Your task to perform on an android device: install app "Messages" Image 0: 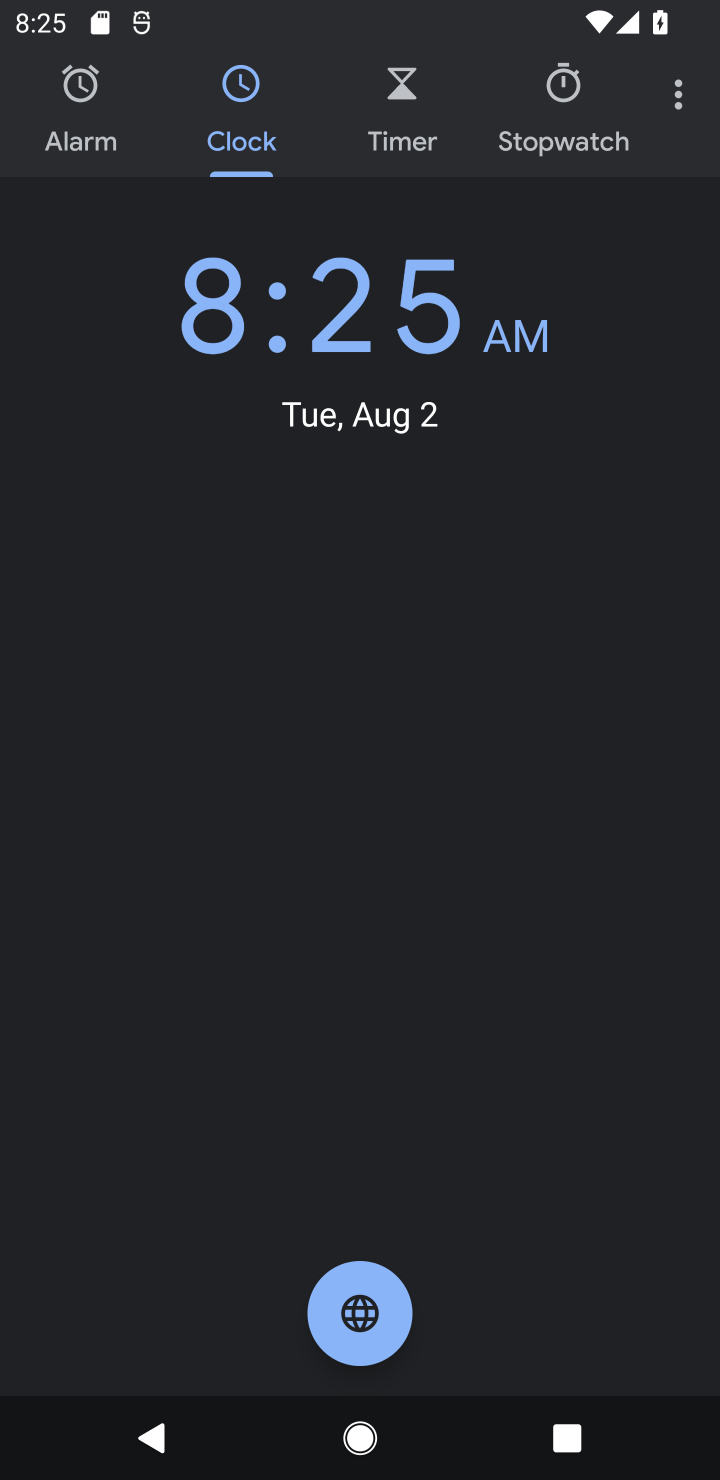
Step 0: press home button
Your task to perform on an android device: install app "Messages" Image 1: 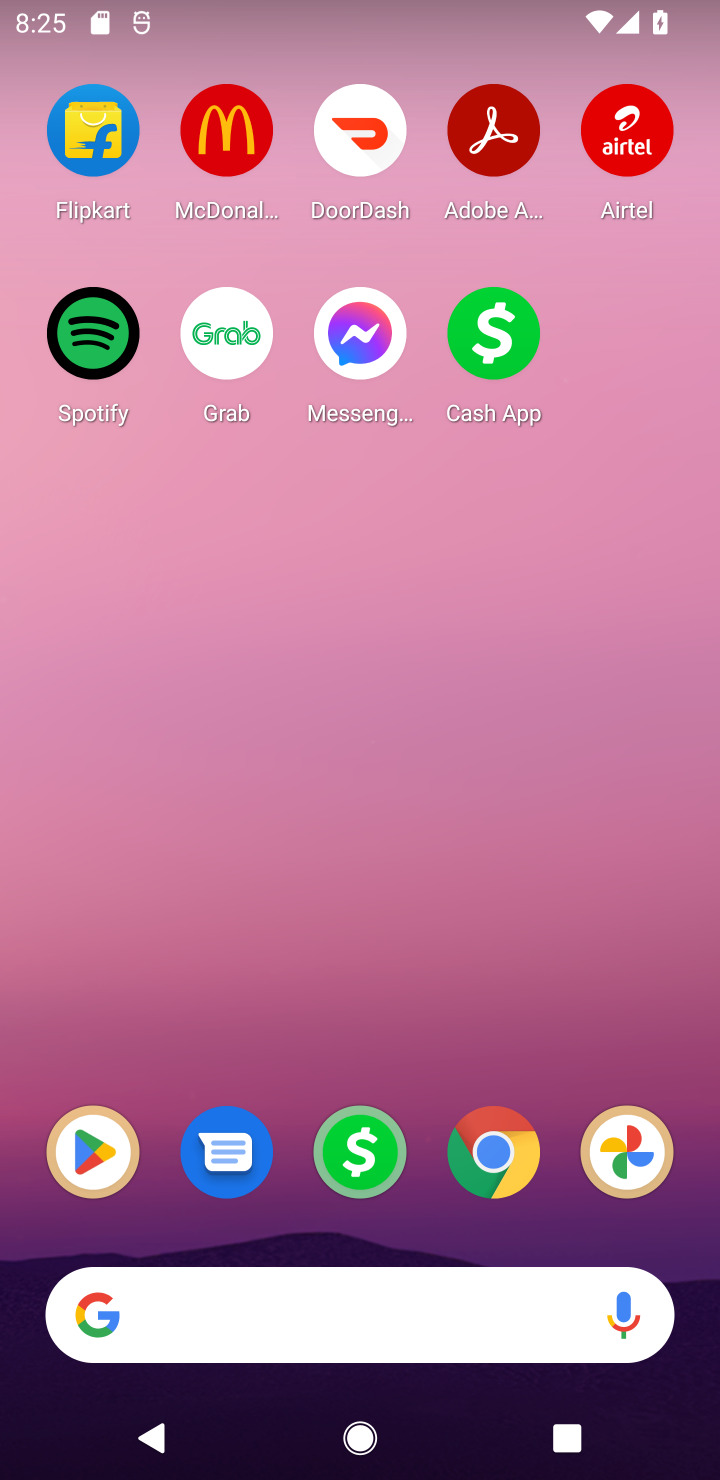
Step 1: click (86, 1171)
Your task to perform on an android device: install app "Messages" Image 2: 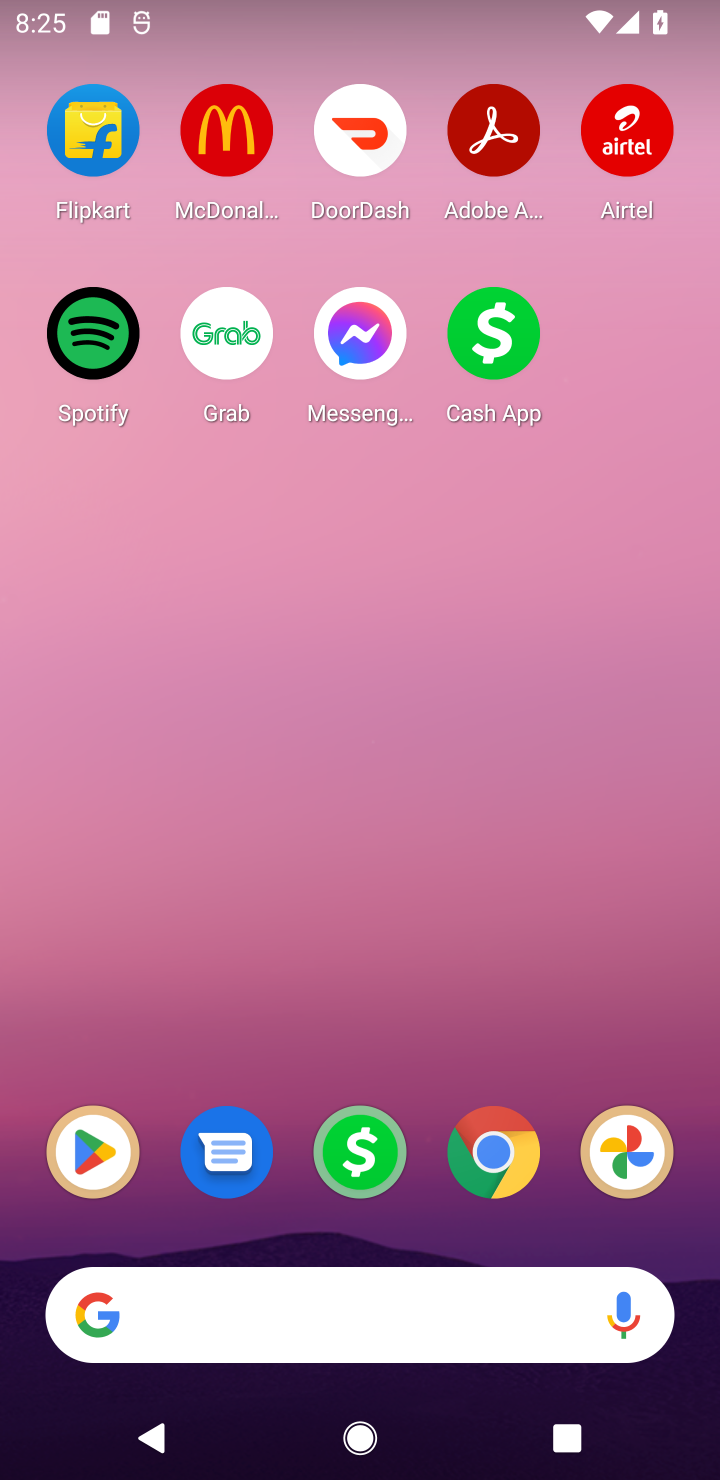
Step 2: click (83, 1148)
Your task to perform on an android device: install app "Messages" Image 3: 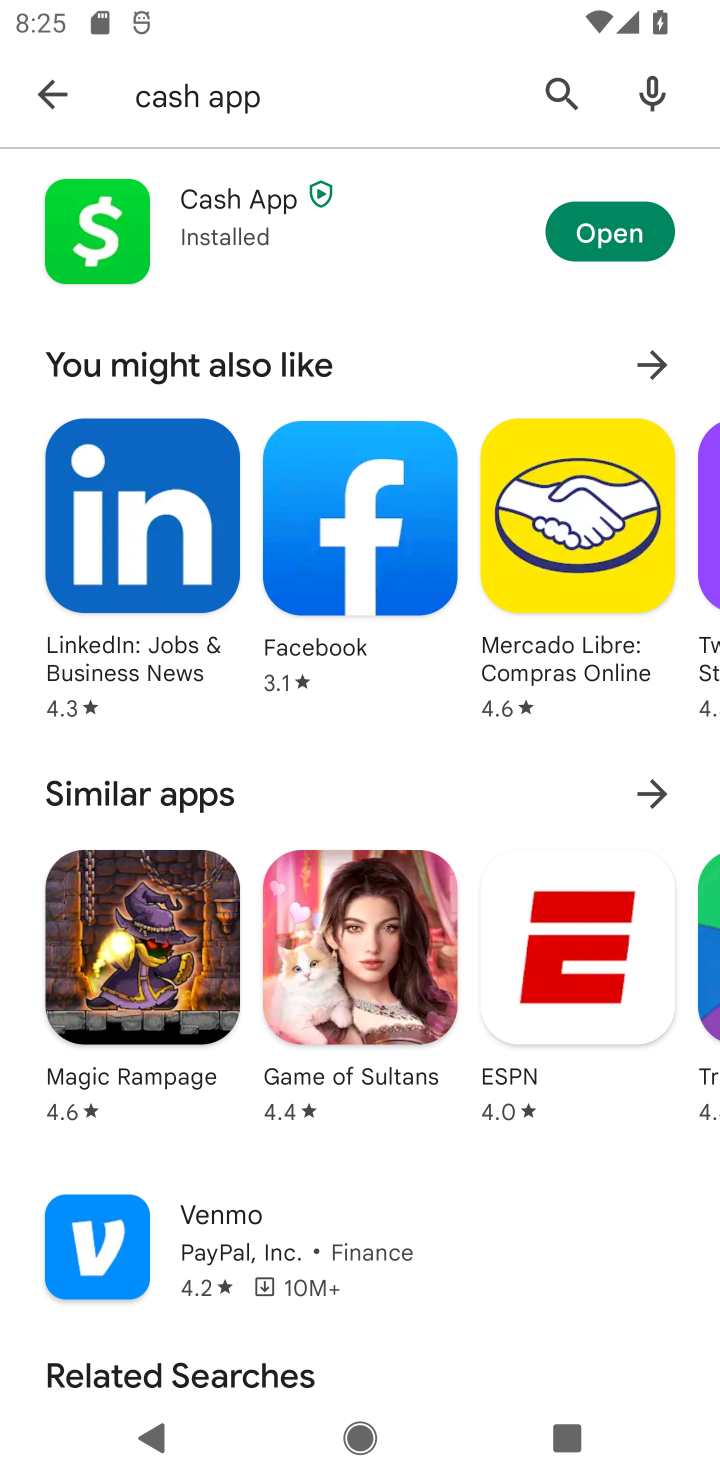
Step 3: click (41, 105)
Your task to perform on an android device: install app "Messages" Image 4: 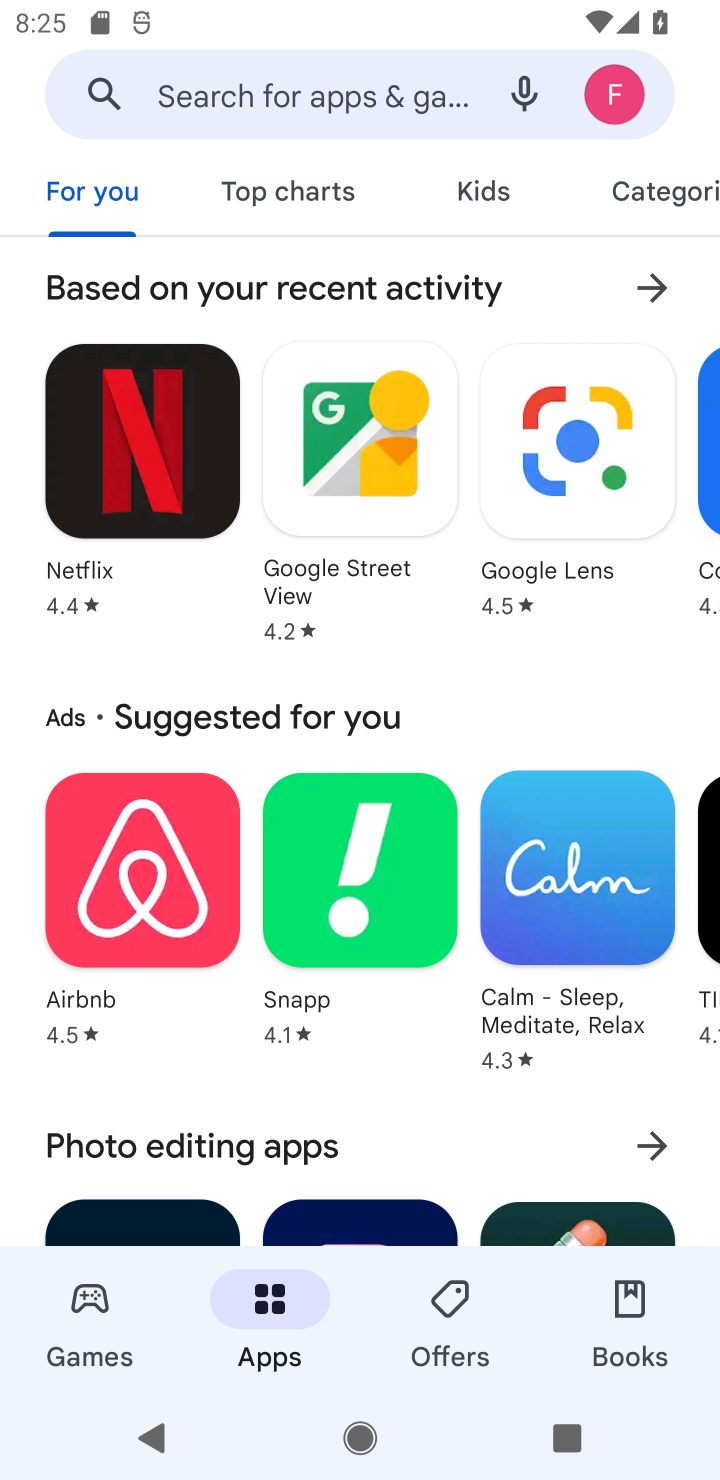
Step 4: click (290, 103)
Your task to perform on an android device: install app "Messages" Image 5: 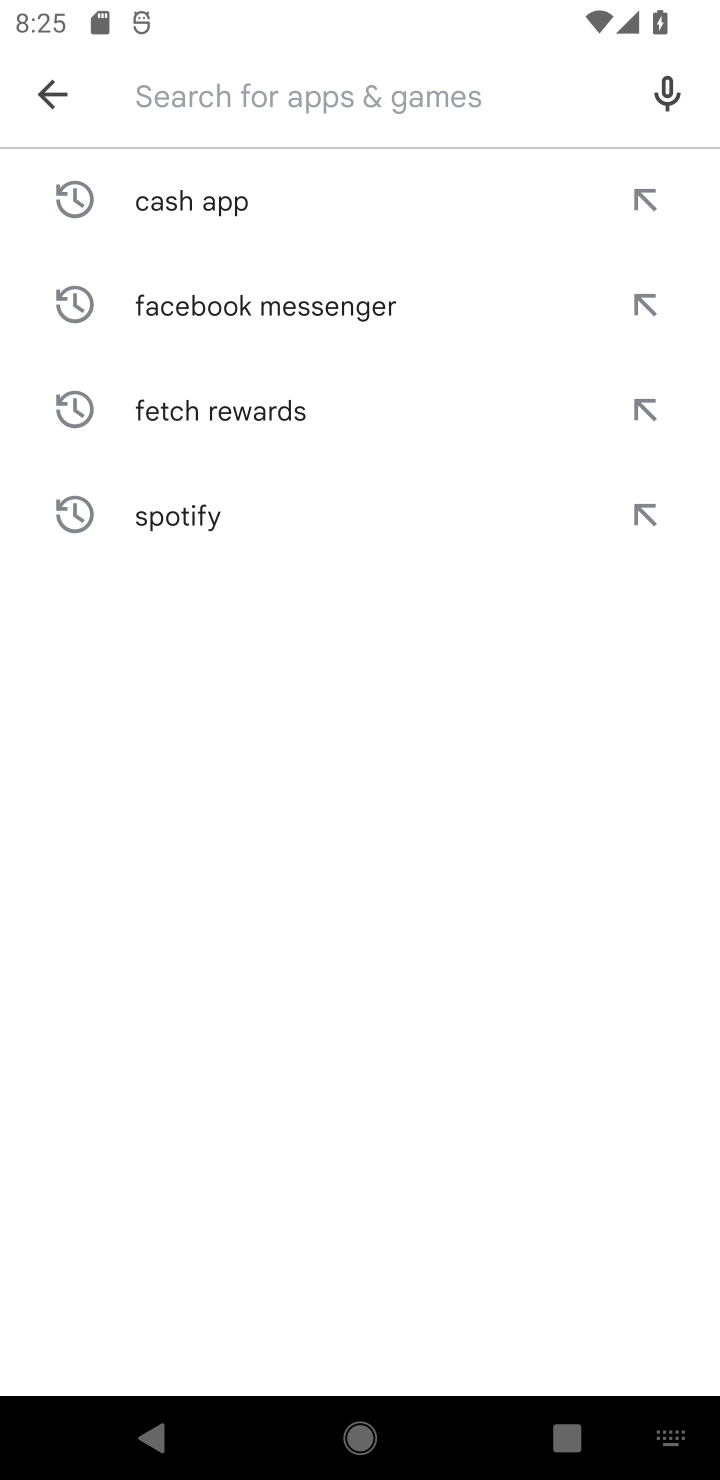
Step 5: type "Messages"
Your task to perform on an android device: install app "Messages" Image 6: 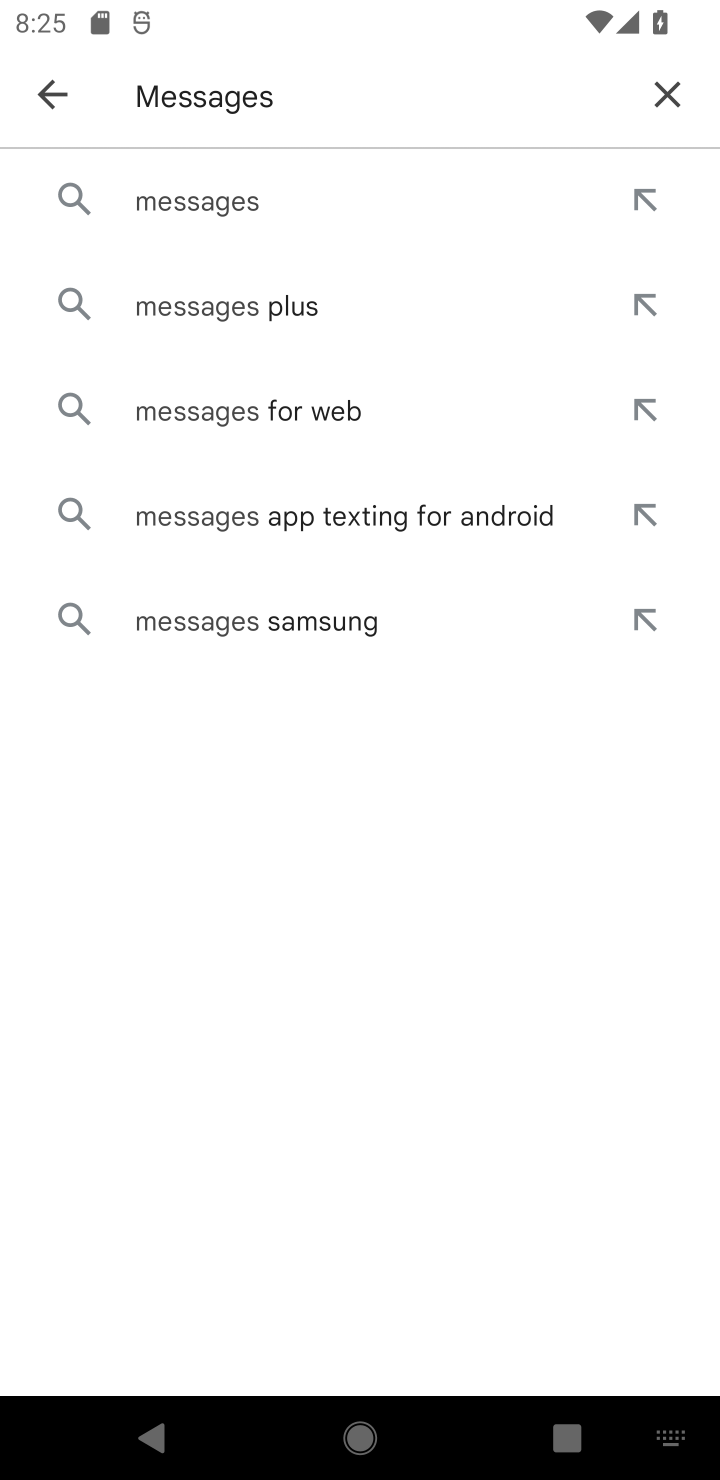
Step 6: click (208, 206)
Your task to perform on an android device: install app "Messages" Image 7: 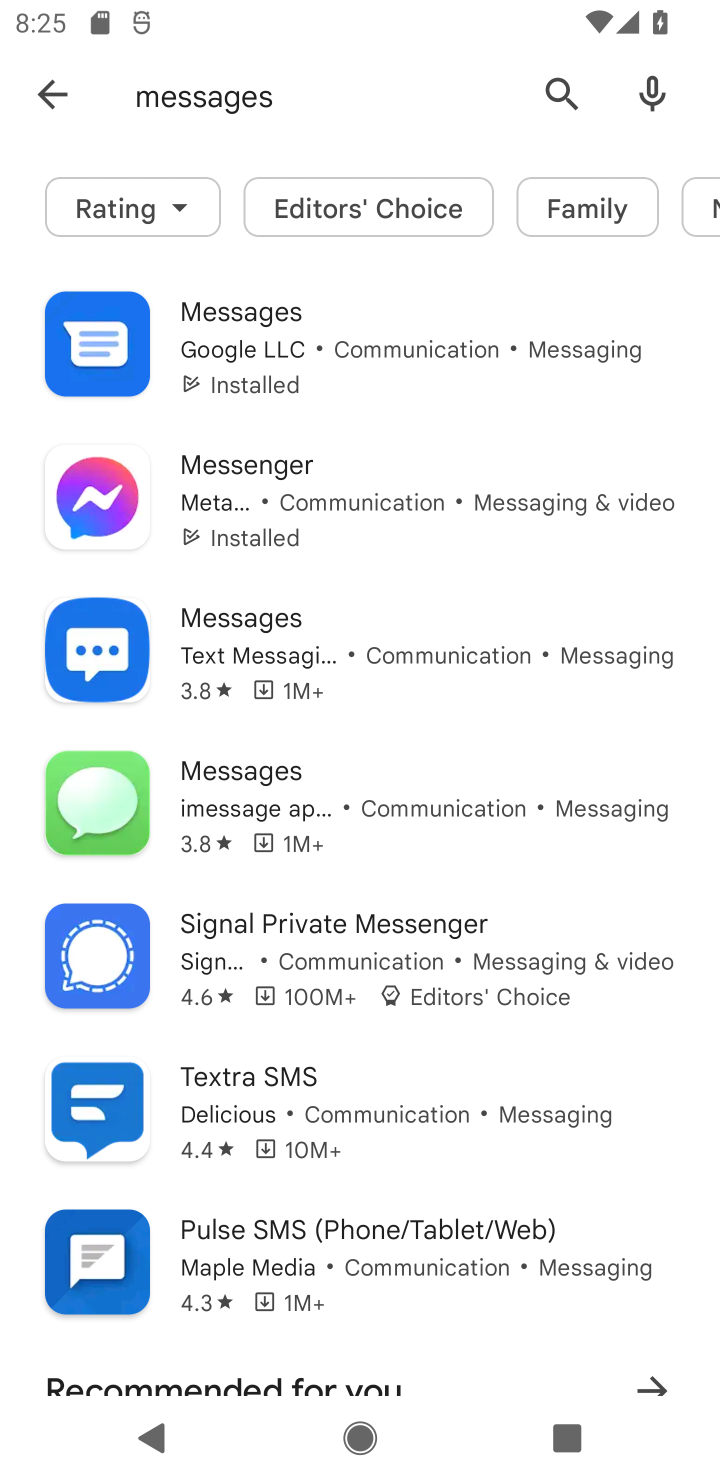
Step 7: click (235, 332)
Your task to perform on an android device: install app "Messages" Image 8: 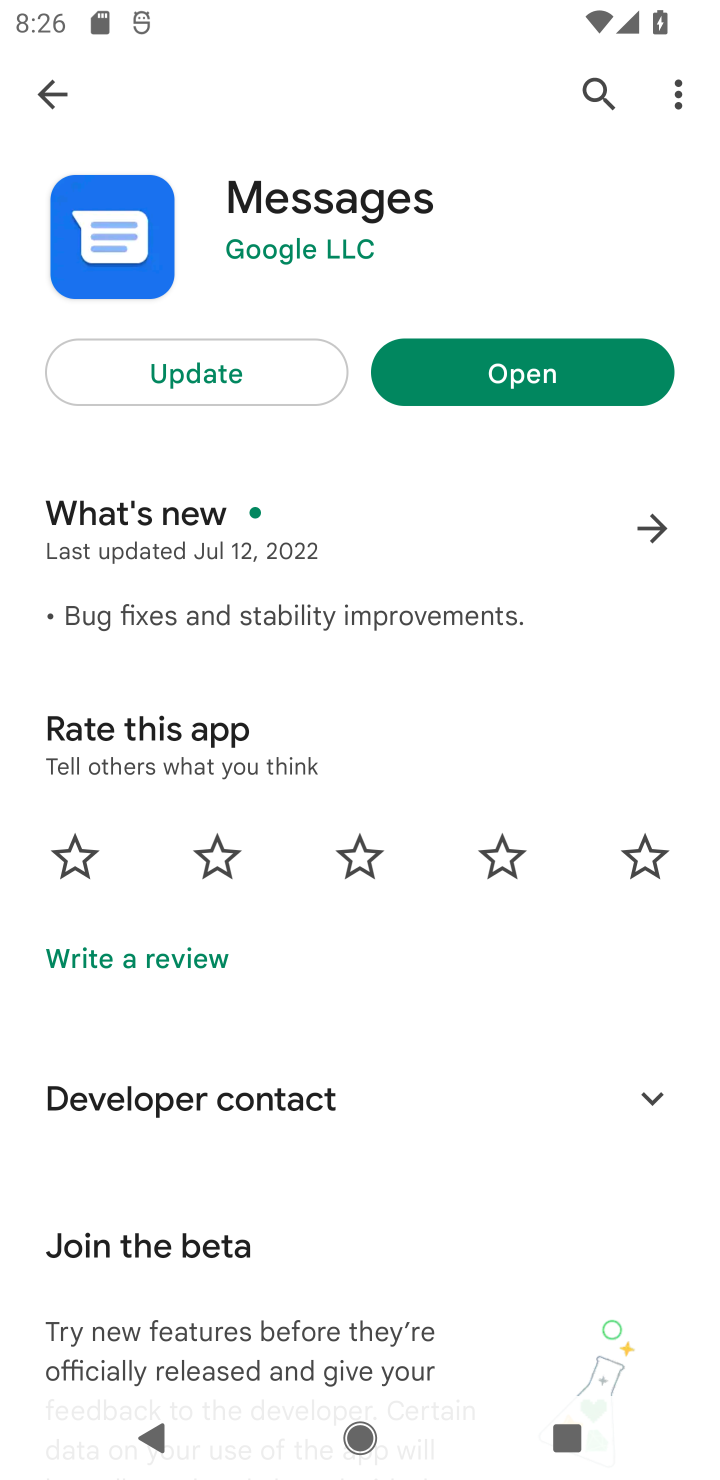
Step 8: click (543, 365)
Your task to perform on an android device: install app "Messages" Image 9: 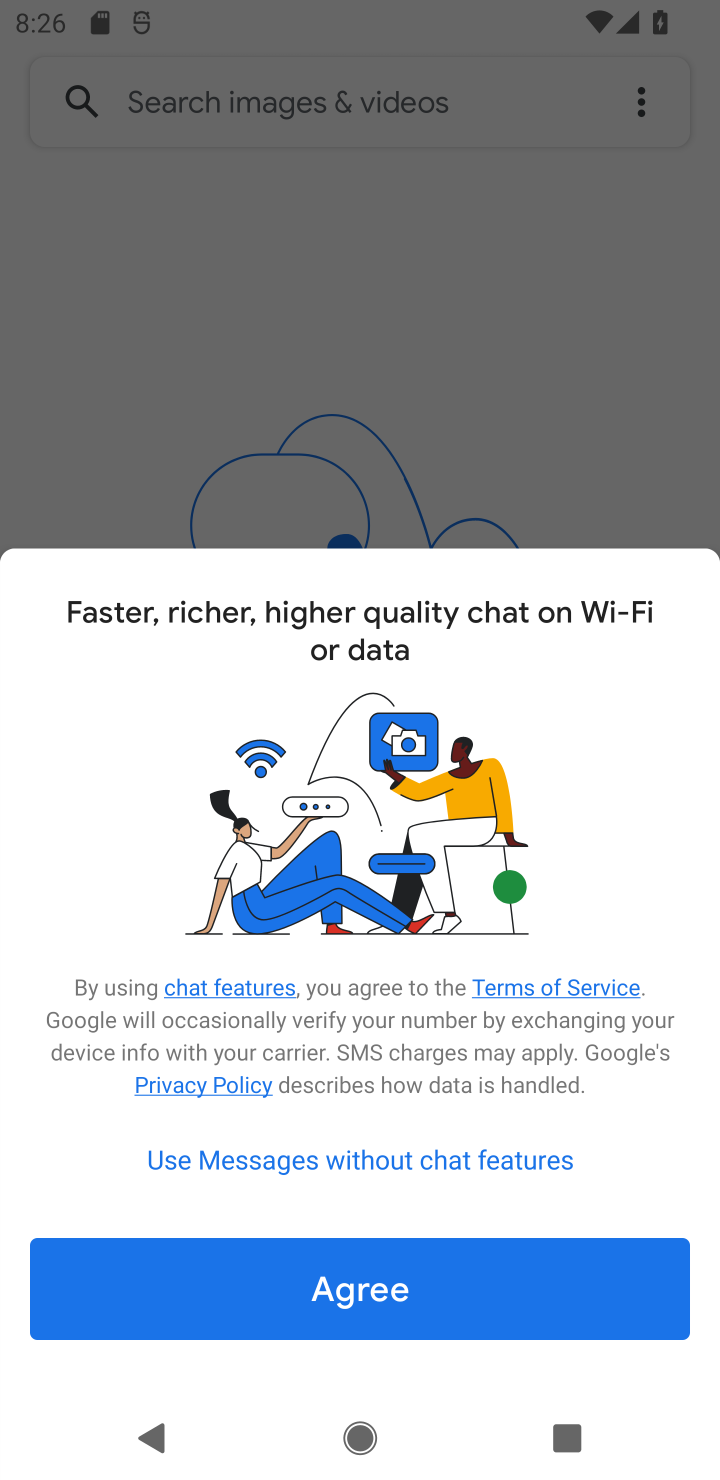
Step 9: click (331, 1298)
Your task to perform on an android device: install app "Messages" Image 10: 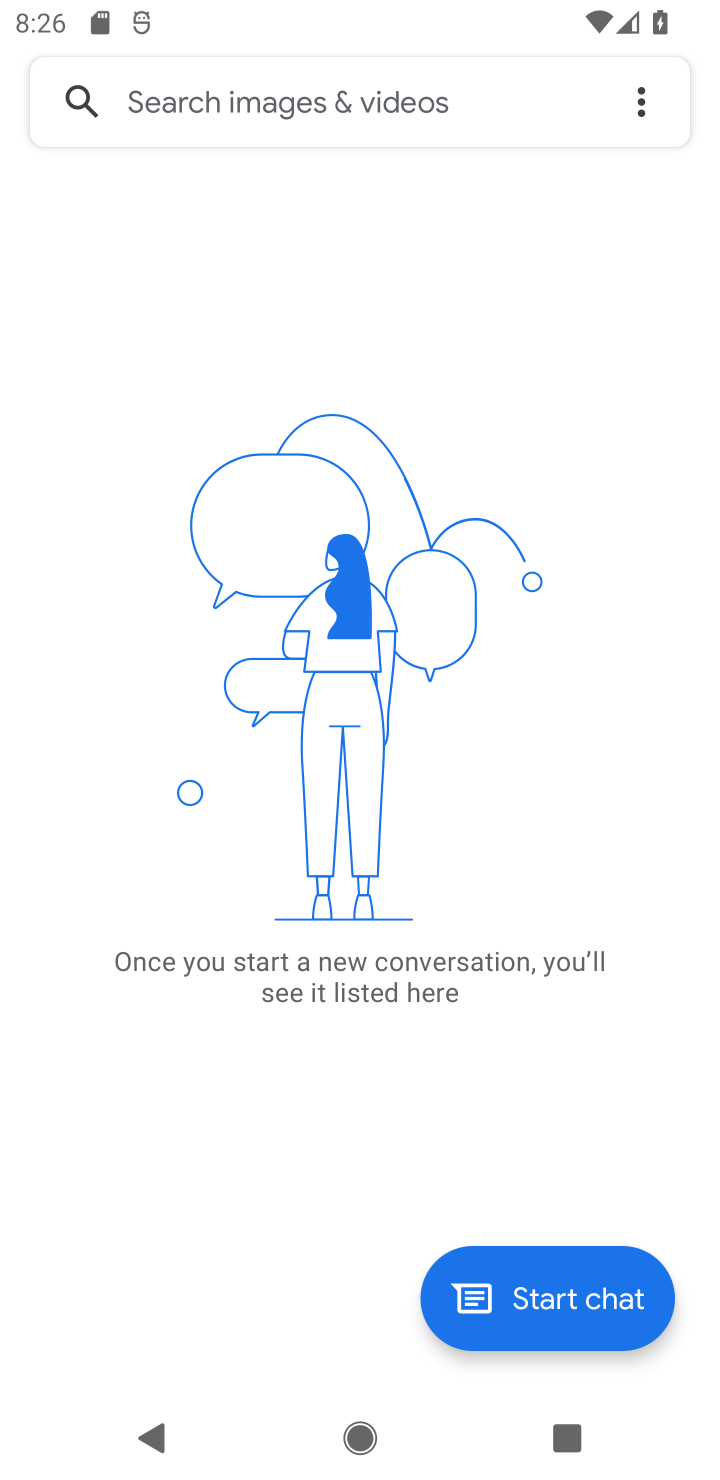
Step 10: task complete